Your task to perform on an android device: Go to accessibility settings Image 0: 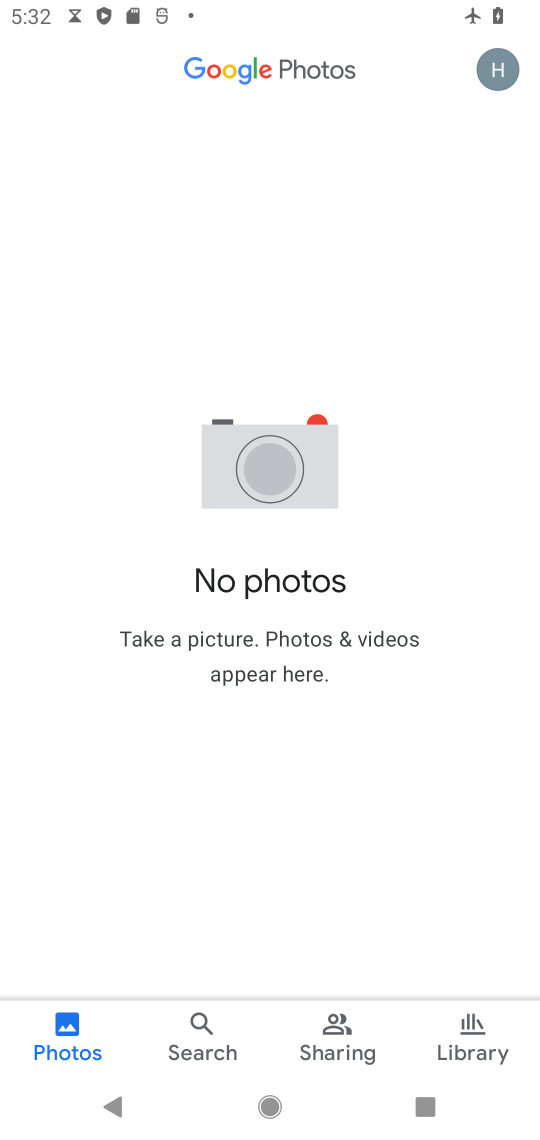
Step 0: press home button
Your task to perform on an android device: Go to accessibility settings Image 1: 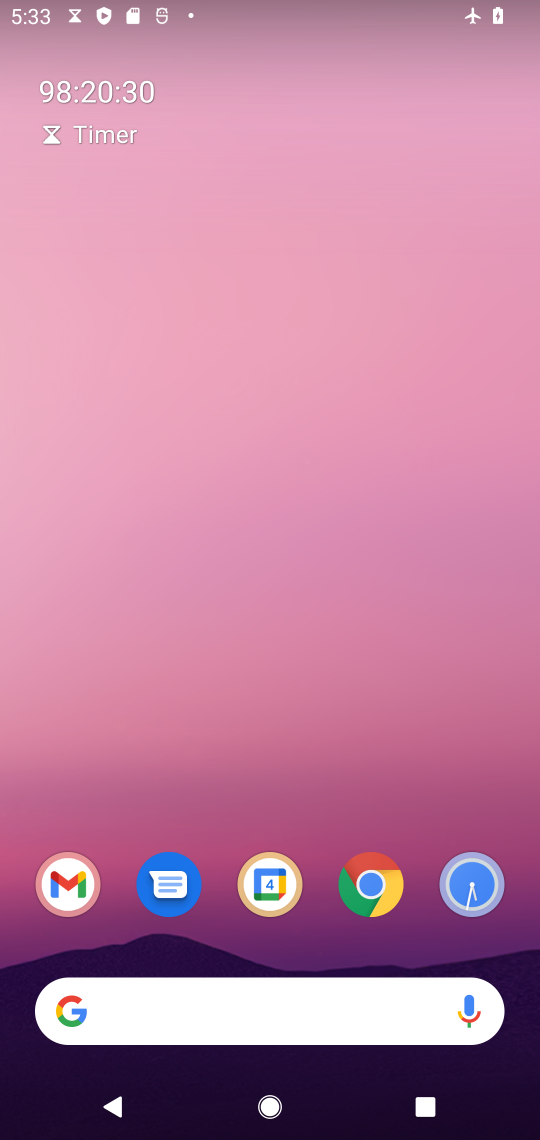
Step 1: drag from (288, 940) to (344, 152)
Your task to perform on an android device: Go to accessibility settings Image 2: 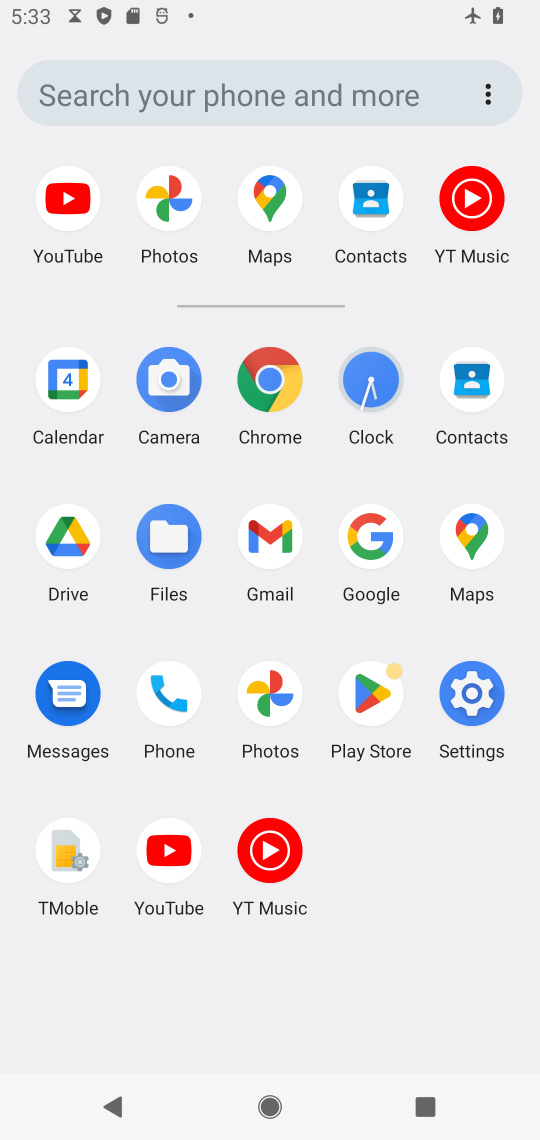
Step 2: click (483, 676)
Your task to perform on an android device: Go to accessibility settings Image 3: 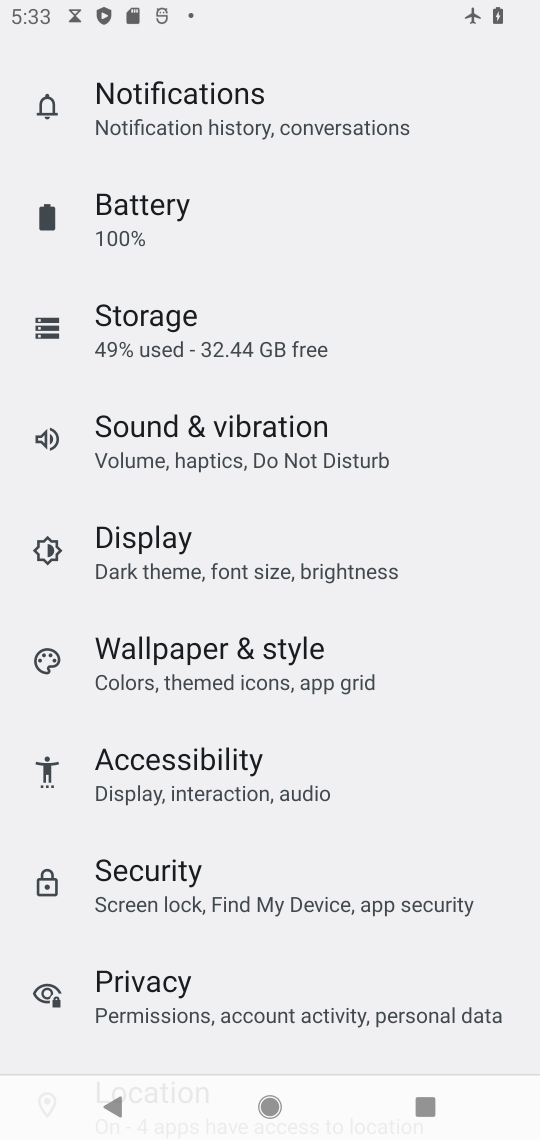
Step 3: click (264, 755)
Your task to perform on an android device: Go to accessibility settings Image 4: 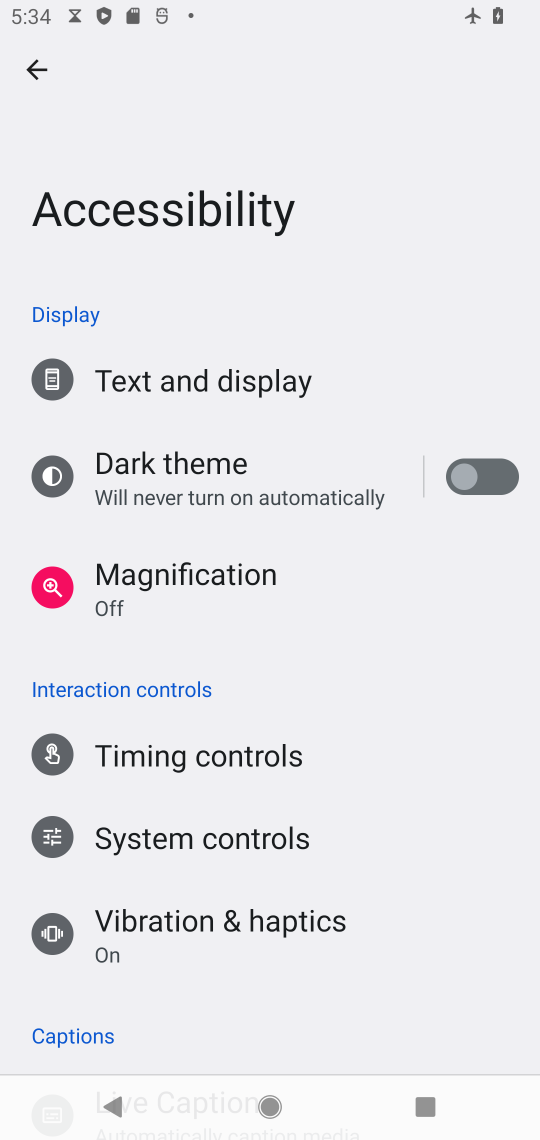
Step 4: task complete